Your task to perform on an android device: Do I have any events tomorrow? Image 0: 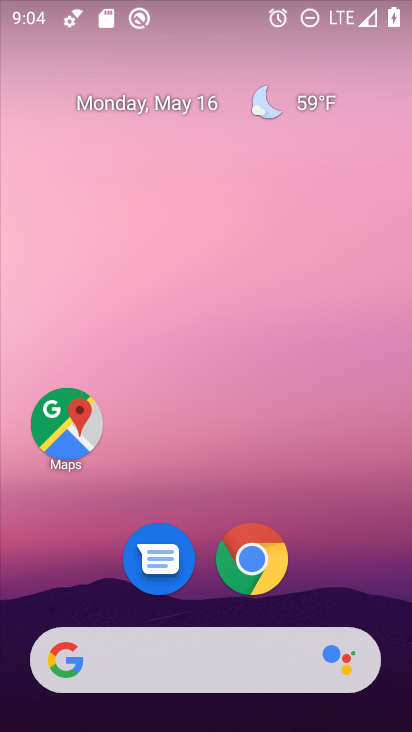
Step 0: drag from (327, 550) to (348, 140)
Your task to perform on an android device: Do I have any events tomorrow? Image 1: 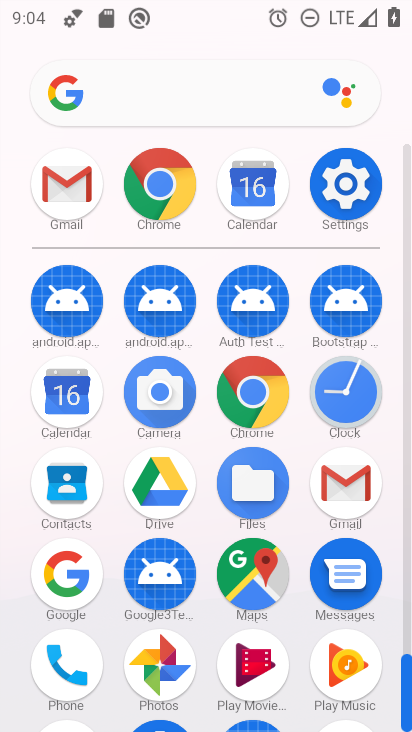
Step 1: drag from (292, 622) to (310, 199)
Your task to perform on an android device: Do I have any events tomorrow? Image 2: 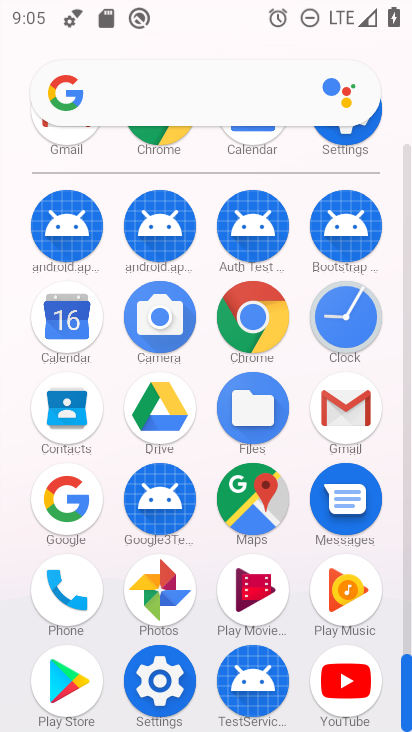
Step 2: drag from (282, 625) to (280, 395)
Your task to perform on an android device: Do I have any events tomorrow? Image 3: 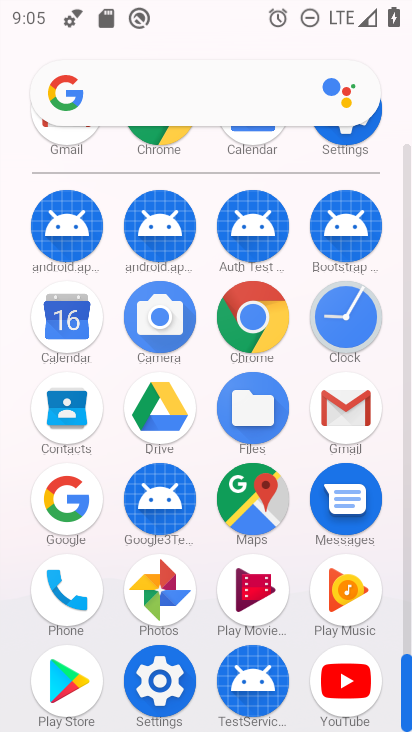
Step 3: click (66, 317)
Your task to perform on an android device: Do I have any events tomorrow? Image 4: 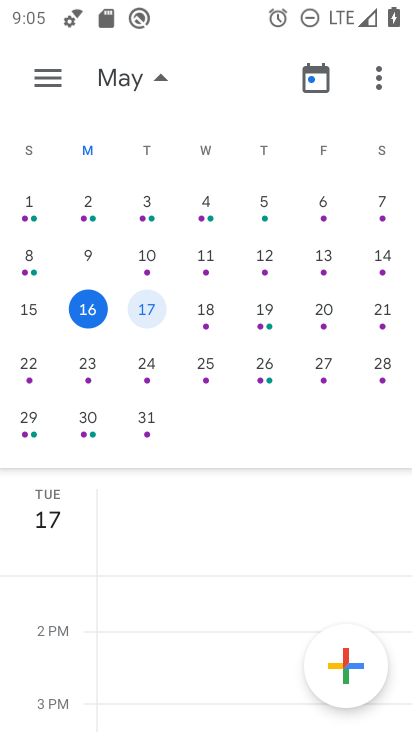
Step 4: click (150, 319)
Your task to perform on an android device: Do I have any events tomorrow? Image 5: 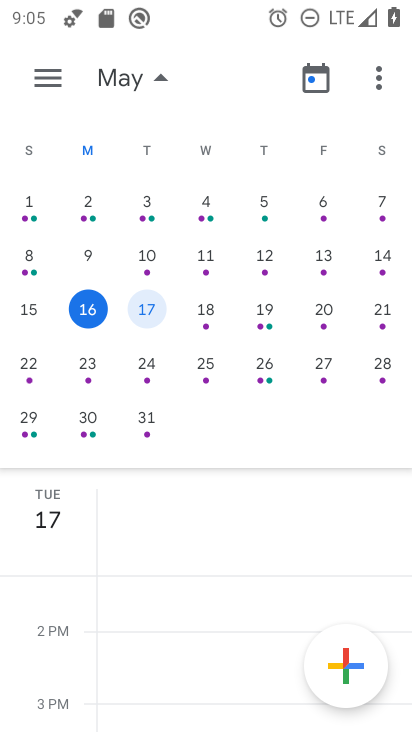
Step 5: click (51, 70)
Your task to perform on an android device: Do I have any events tomorrow? Image 6: 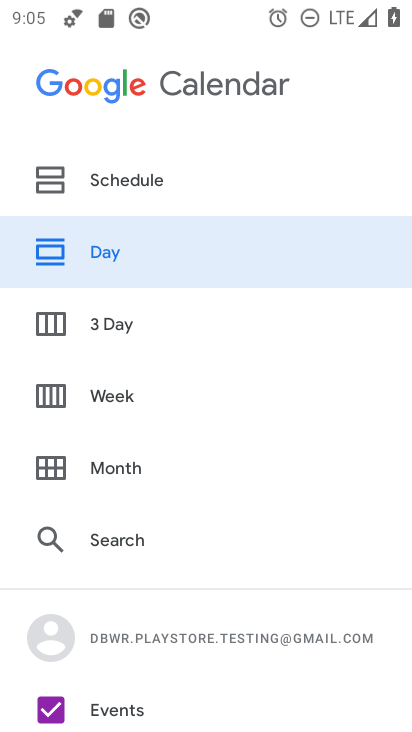
Step 6: click (137, 176)
Your task to perform on an android device: Do I have any events tomorrow? Image 7: 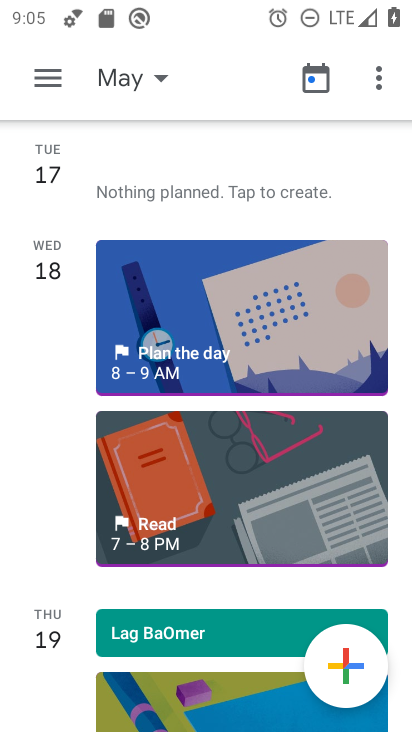
Step 7: task complete